Your task to perform on an android device: Go to settings Image 0: 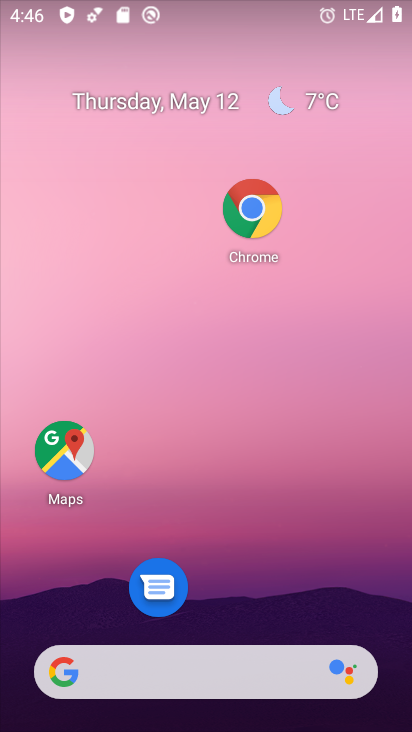
Step 0: drag from (251, 204) to (233, 118)
Your task to perform on an android device: Go to settings Image 1: 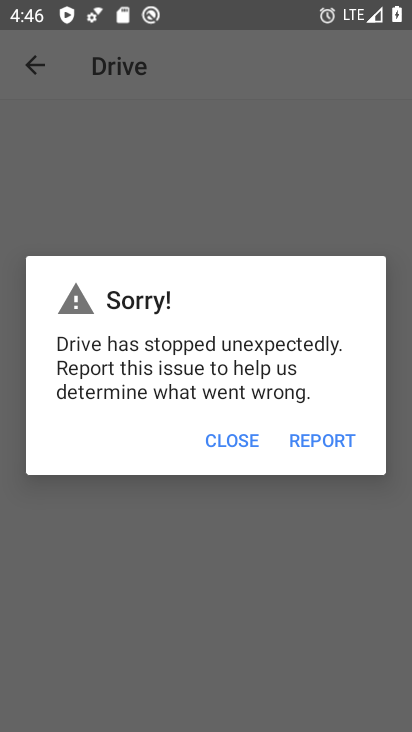
Step 1: press home button
Your task to perform on an android device: Go to settings Image 2: 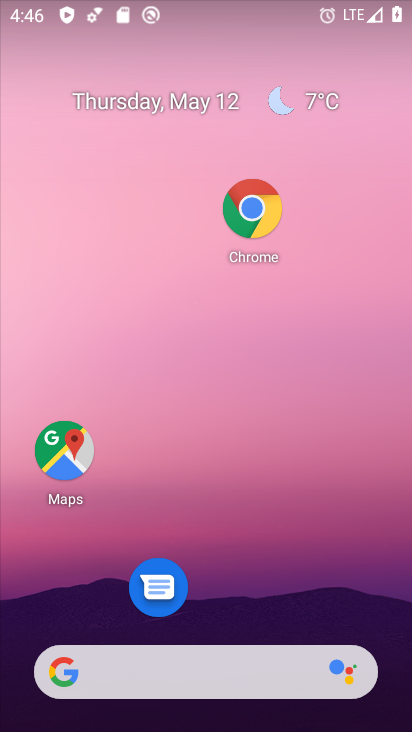
Step 2: drag from (266, 643) to (226, 248)
Your task to perform on an android device: Go to settings Image 3: 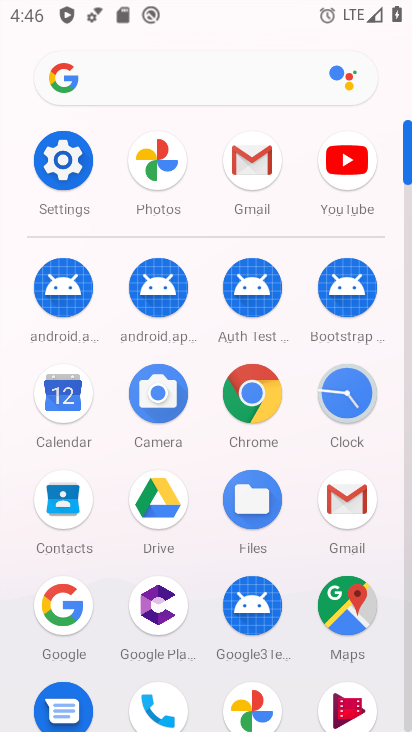
Step 3: click (60, 212)
Your task to perform on an android device: Go to settings Image 4: 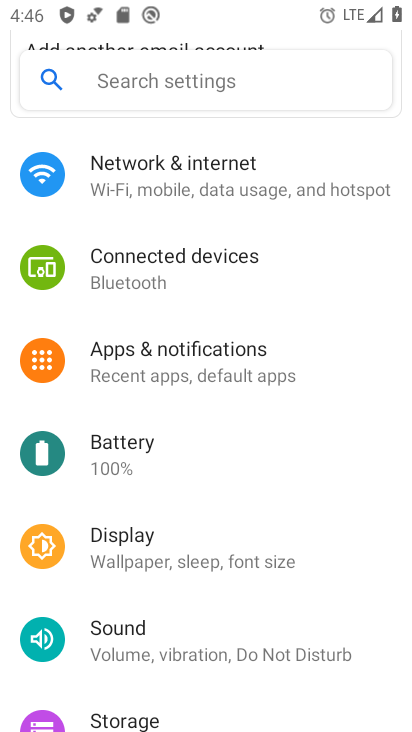
Step 4: task complete